Your task to perform on an android device: Open Chrome and go to the settings page Image 0: 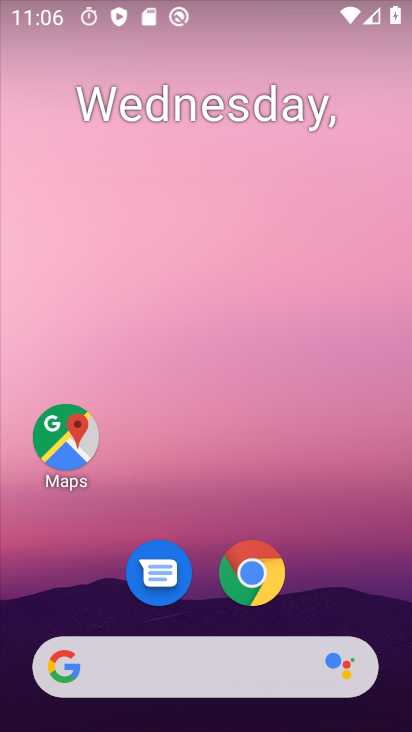
Step 0: click (252, 574)
Your task to perform on an android device: Open Chrome and go to the settings page Image 1: 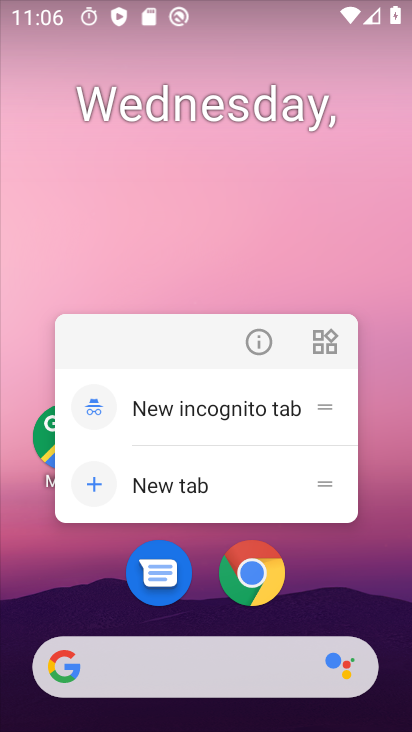
Step 1: click (252, 574)
Your task to perform on an android device: Open Chrome and go to the settings page Image 2: 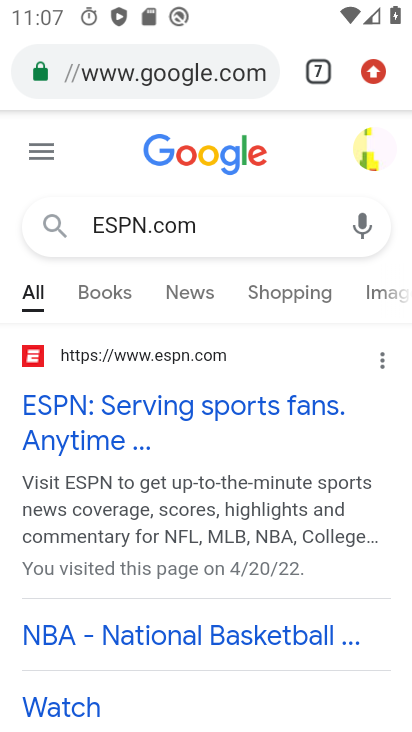
Step 2: click (377, 71)
Your task to perform on an android device: Open Chrome and go to the settings page Image 3: 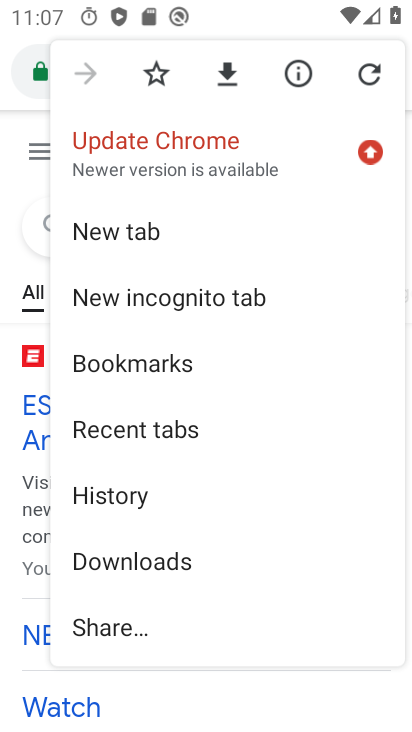
Step 3: click (263, 336)
Your task to perform on an android device: Open Chrome and go to the settings page Image 4: 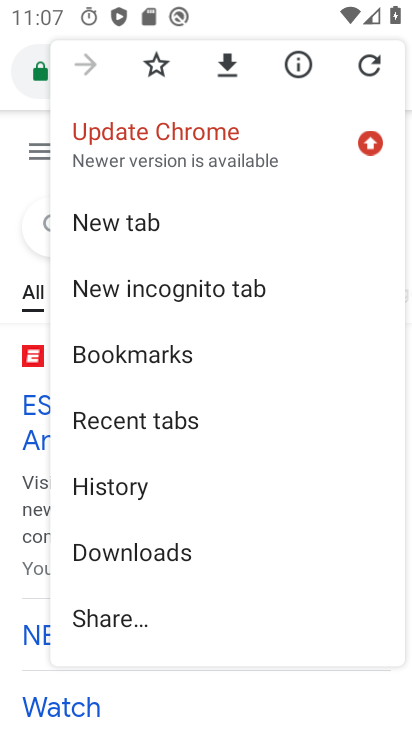
Step 4: drag from (255, 516) to (282, 249)
Your task to perform on an android device: Open Chrome and go to the settings page Image 5: 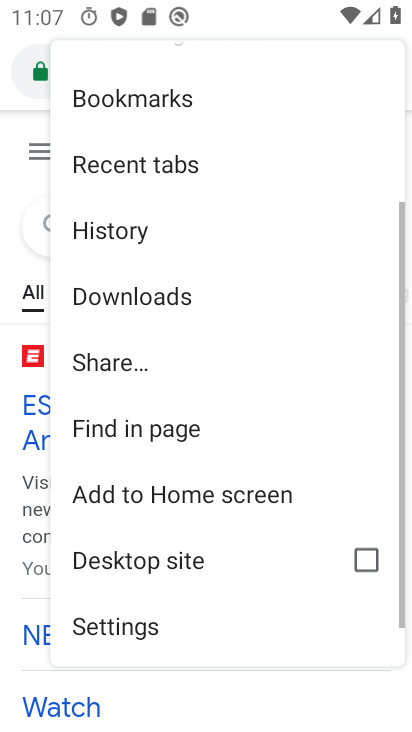
Step 5: click (123, 629)
Your task to perform on an android device: Open Chrome and go to the settings page Image 6: 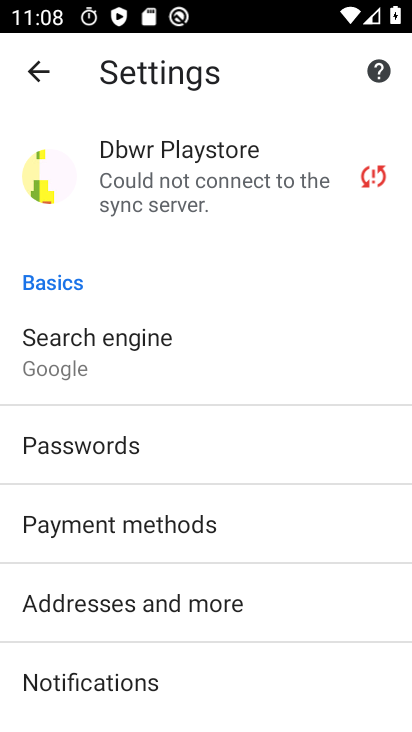
Step 6: task complete